Your task to perform on an android device: open app "Google Chat" Image 0: 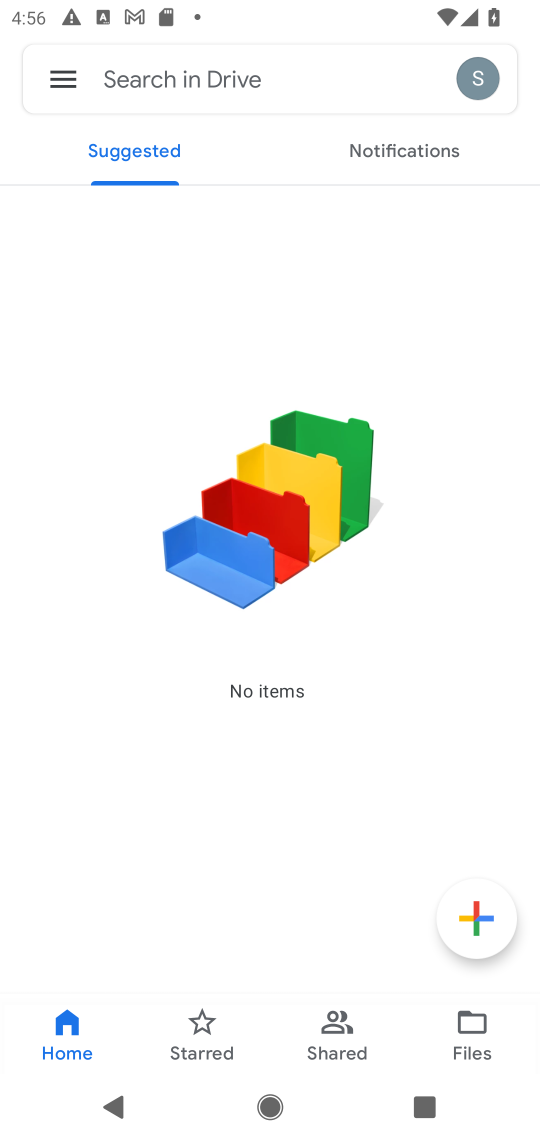
Step 0: press home button
Your task to perform on an android device: open app "Google Chat" Image 1: 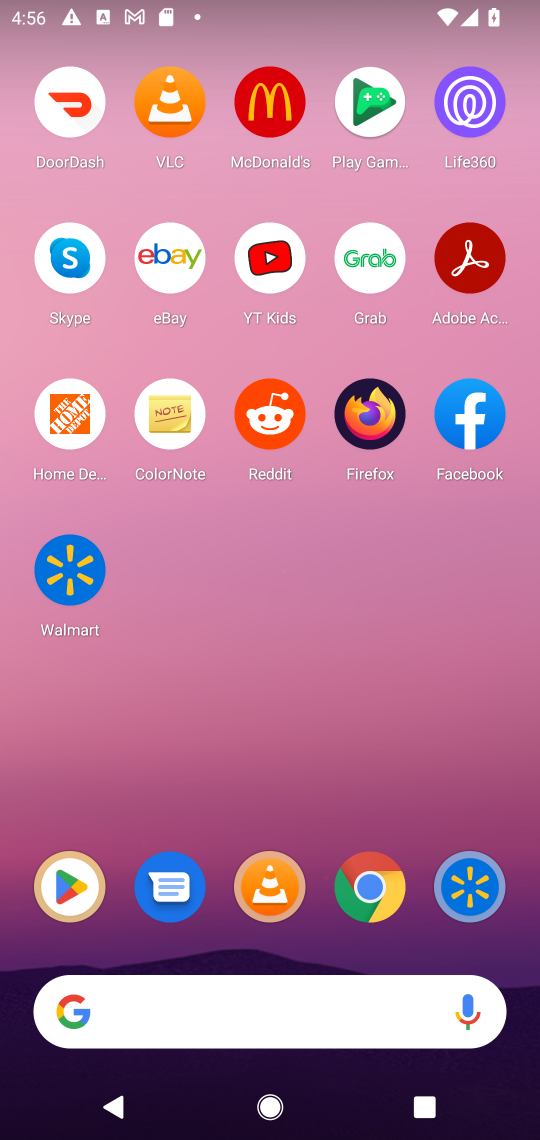
Step 1: click (50, 895)
Your task to perform on an android device: open app "Google Chat" Image 2: 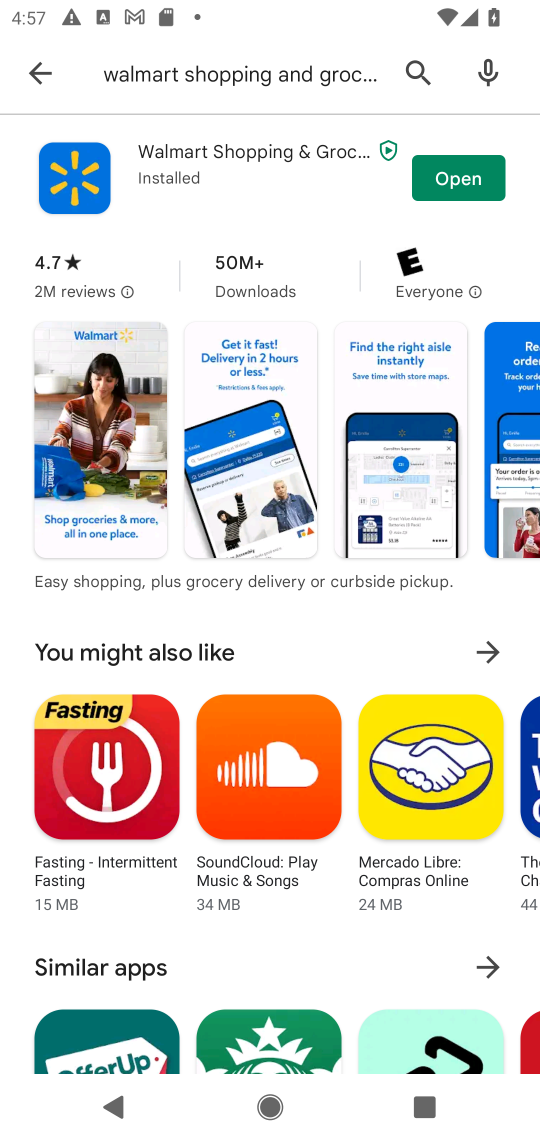
Step 2: click (247, 65)
Your task to perform on an android device: open app "Google Chat" Image 3: 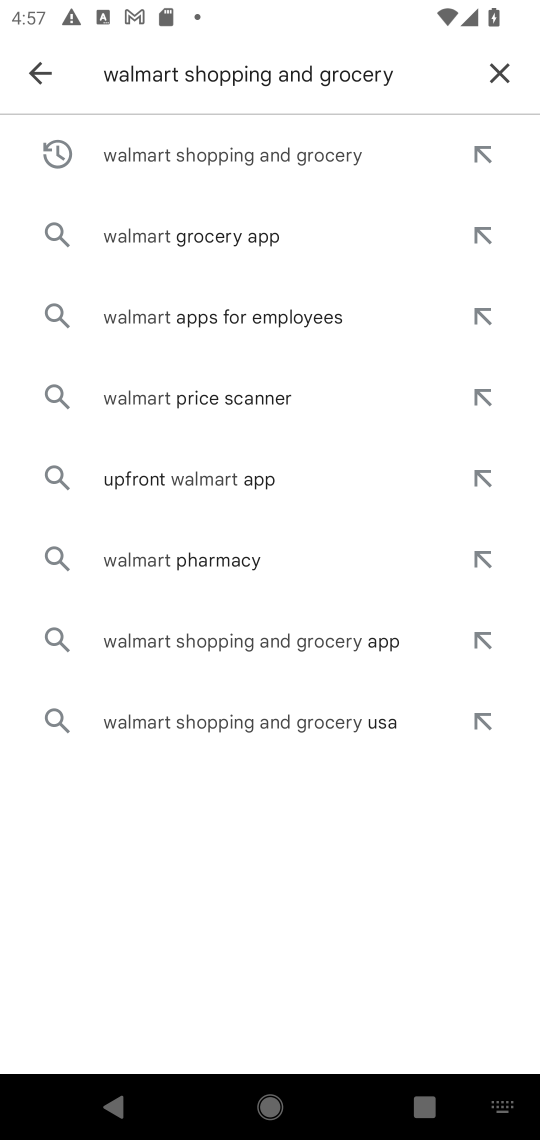
Step 3: click (502, 74)
Your task to perform on an android device: open app "Google Chat" Image 4: 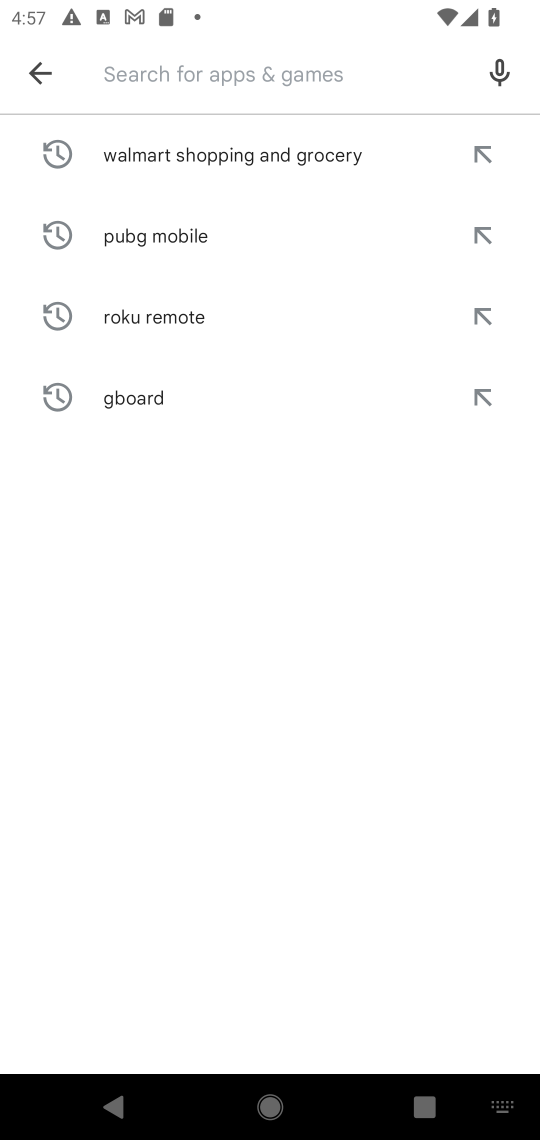
Step 4: type "google chat"
Your task to perform on an android device: open app "Google Chat" Image 5: 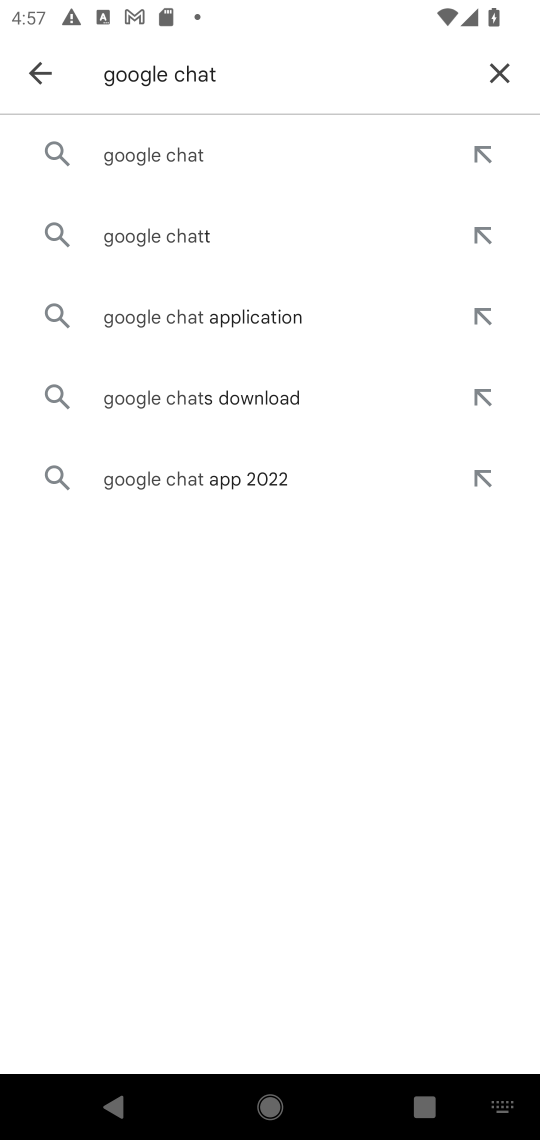
Step 5: click (172, 174)
Your task to perform on an android device: open app "Google Chat" Image 6: 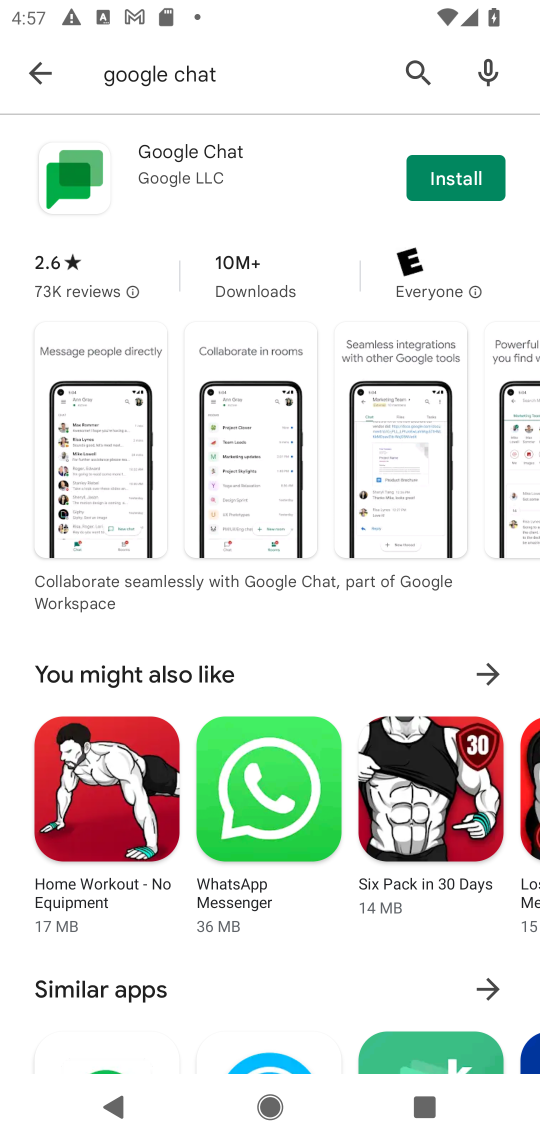
Step 6: task complete